Your task to perform on an android device: toggle location history Image 0: 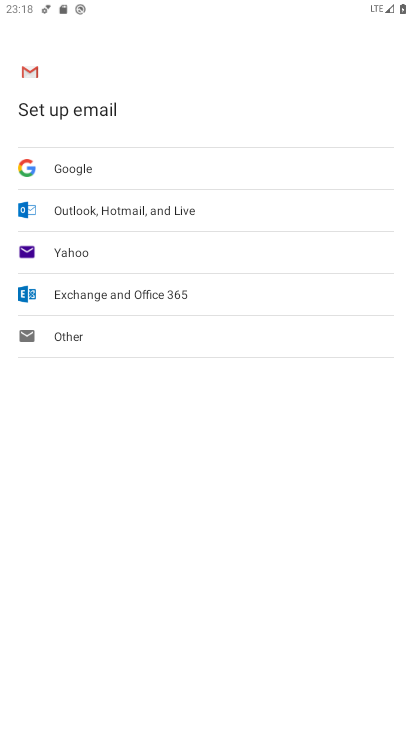
Step 0: press home button
Your task to perform on an android device: toggle location history Image 1: 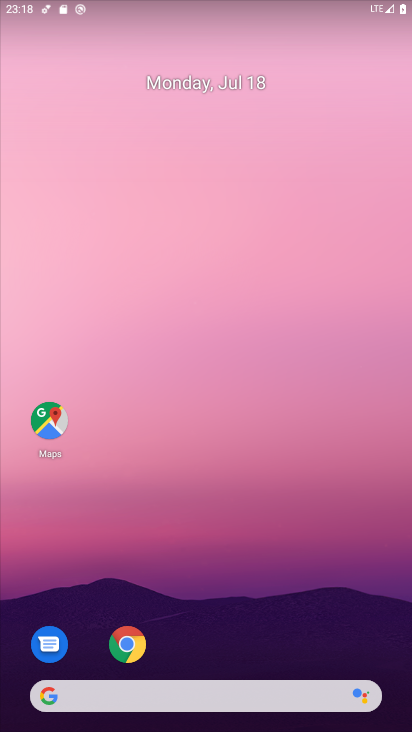
Step 1: drag from (353, 631) to (365, 150)
Your task to perform on an android device: toggle location history Image 2: 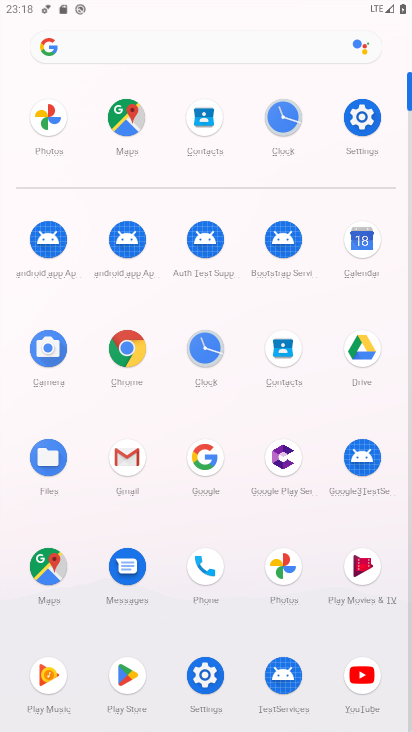
Step 2: click (362, 124)
Your task to perform on an android device: toggle location history Image 3: 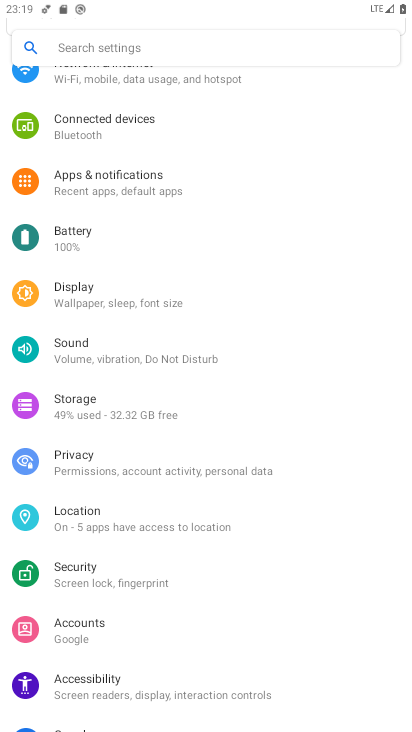
Step 3: drag from (303, 222) to (314, 317)
Your task to perform on an android device: toggle location history Image 4: 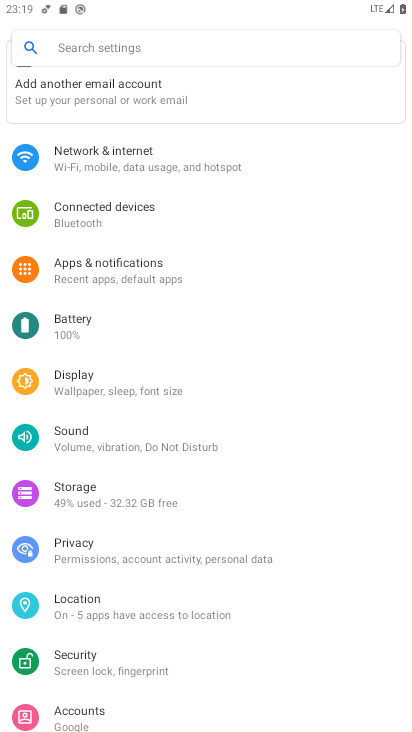
Step 4: drag from (332, 215) to (321, 372)
Your task to perform on an android device: toggle location history Image 5: 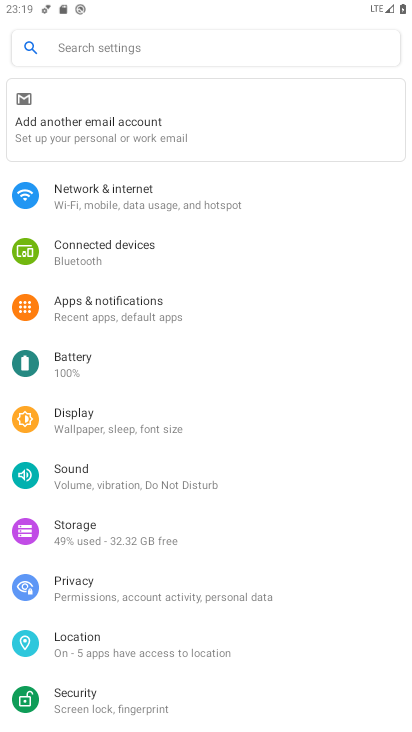
Step 5: drag from (333, 488) to (340, 404)
Your task to perform on an android device: toggle location history Image 6: 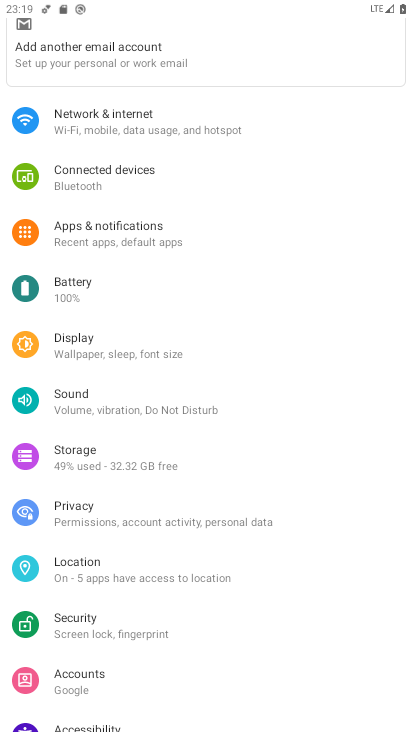
Step 6: drag from (326, 529) to (333, 419)
Your task to perform on an android device: toggle location history Image 7: 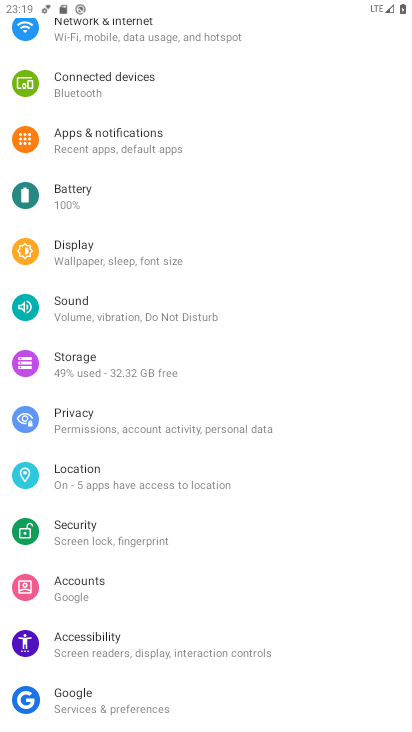
Step 7: drag from (335, 518) to (343, 435)
Your task to perform on an android device: toggle location history Image 8: 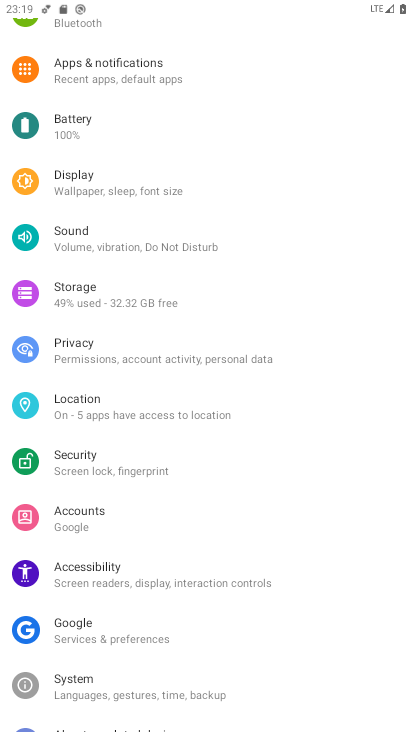
Step 8: drag from (337, 571) to (346, 458)
Your task to perform on an android device: toggle location history Image 9: 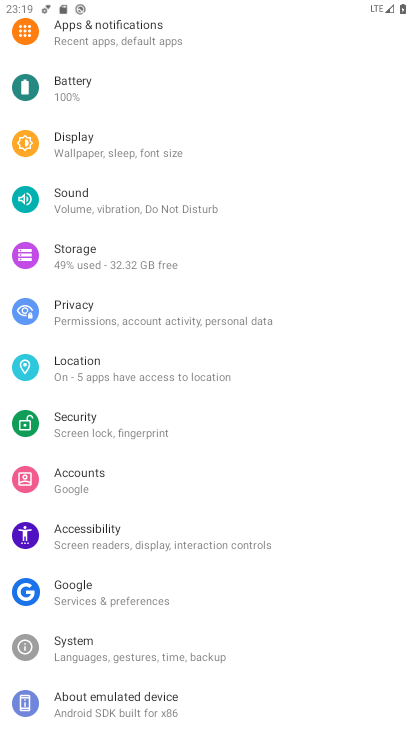
Step 9: click (235, 376)
Your task to perform on an android device: toggle location history Image 10: 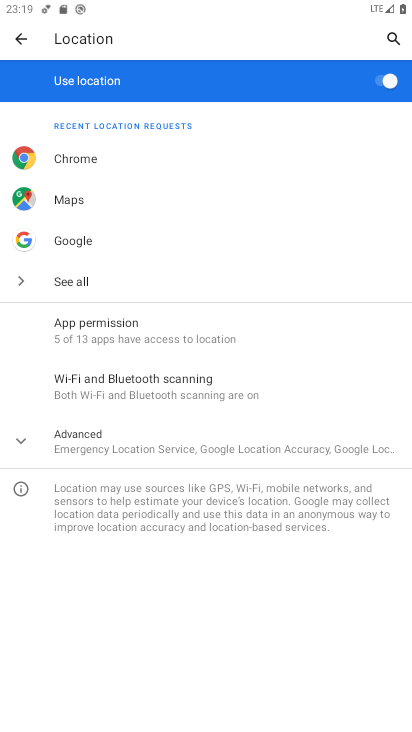
Step 10: click (234, 447)
Your task to perform on an android device: toggle location history Image 11: 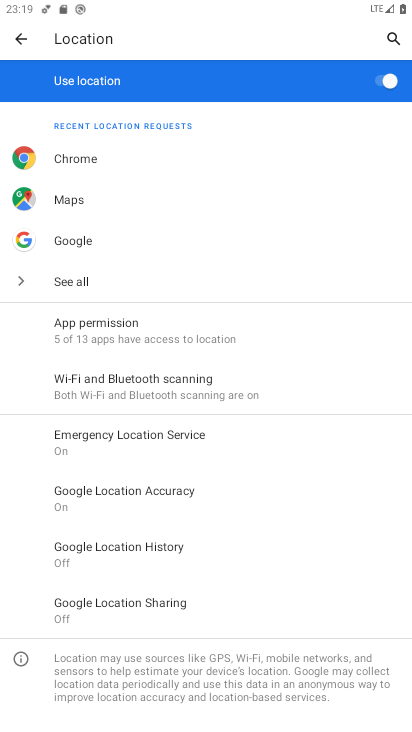
Step 11: drag from (259, 541) to (265, 425)
Your task to perform on an android device: toggle location history Image 12: 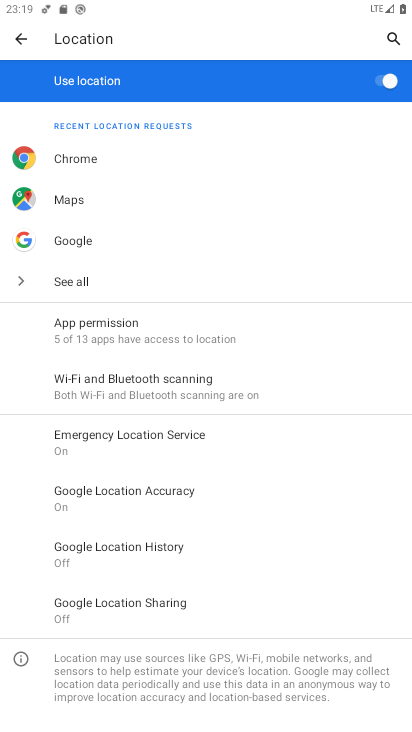
Step 12: click (136, 556)
Your task to perform on an android device: toggle location history Image 13: 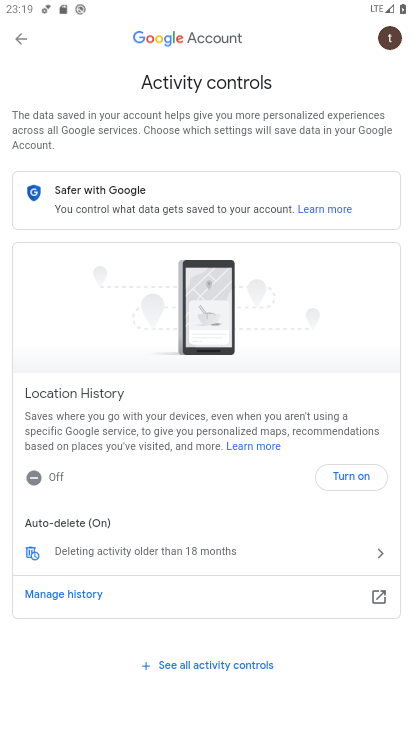
Step 13: click (358, 478)
Your task to perform on an android device: toggle location history Image 14: 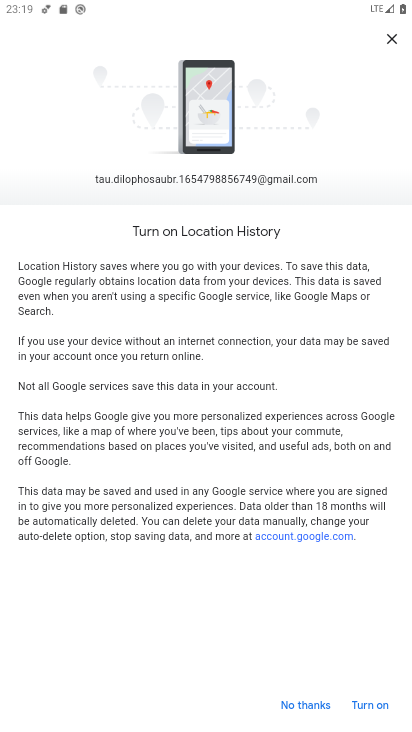
Step 14: click (362, 704)
Your task to perform on an android device: toggle location history Image 15: 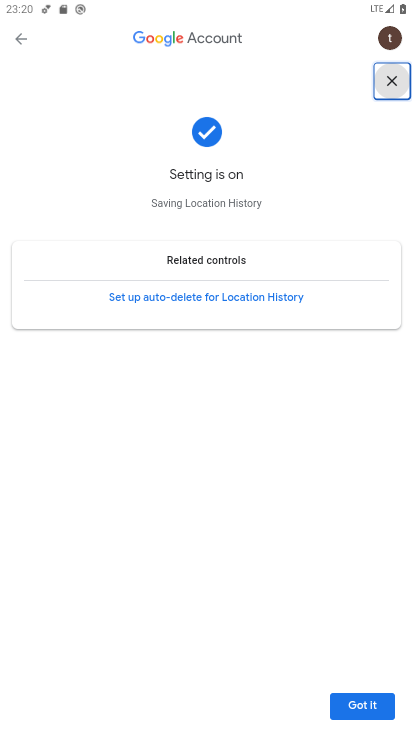
Step 15: task complete